Your task to perform on an android device: turn on notifications settings in the gmail app Image 0: 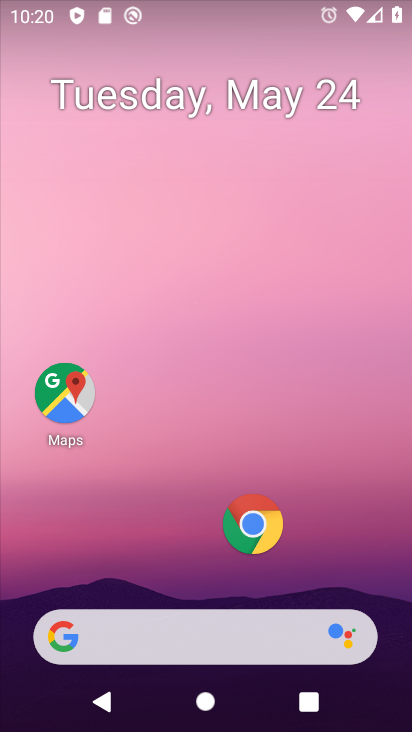
Step 0: drag from (169, 503) to (243, 26)
Your task to perform on an android device: turn on notifications settings in the gmail app Image 1: 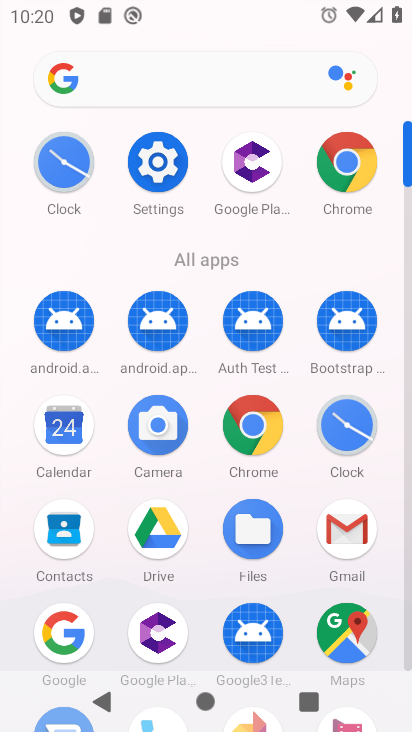
Step 1: click (341, 529)
Your task to perform on an android device: turn on notifications settings in the gmail app Image 2: 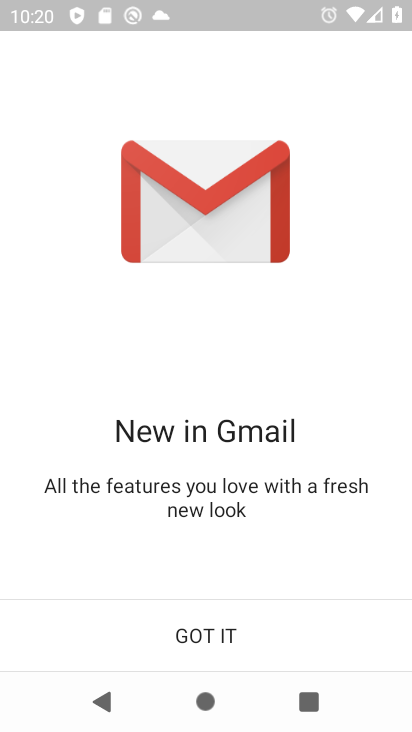
Step 2: click (262, 616)
Your task to perform on an android device: turn on notifications settings in the gmail app Image 3: 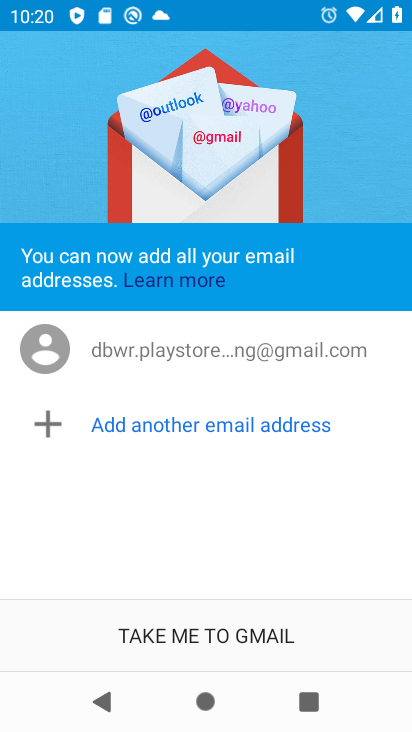
Step 3: click (264, 629)
Your task to perform on an android device: turn on notifications settings in the gmail app Image 4: 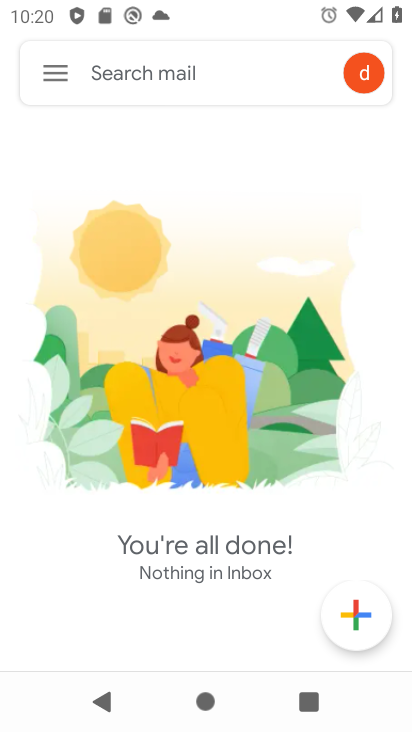
Step 4: click (50, 79)
Your task to perform on an android device: turn on notifications settings in the gmail app Image 5: 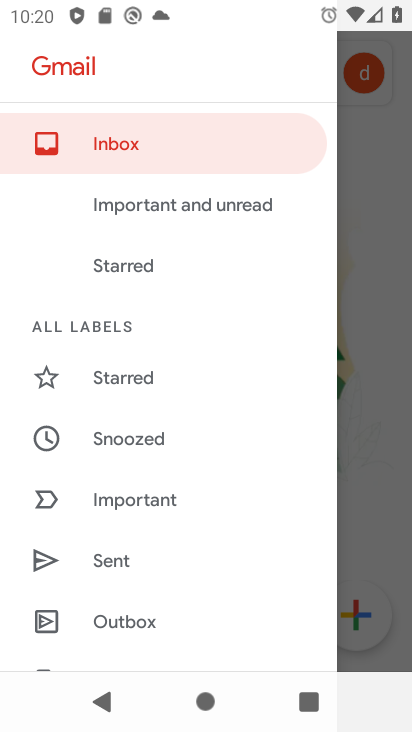
Step 5: drag from (148, 543) to (179, 130)
Your task to perform on an android device: turn on notifications settings in the gmail app Image 6: 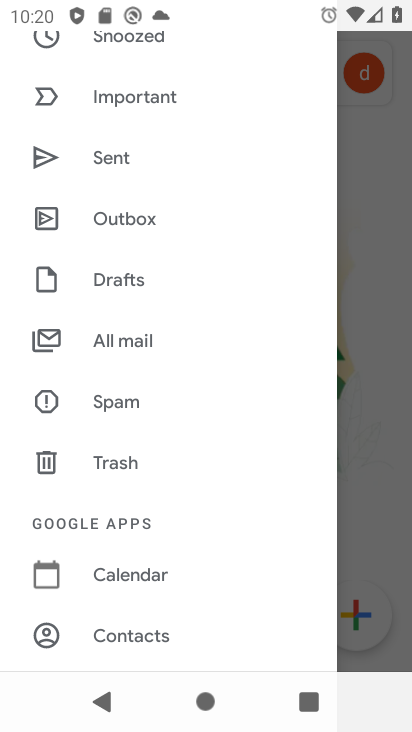
Step 6: drag from (173, 460) to (197, 172)
Your task to perform on an android device: turn on notifications settings in the gmail app Image 7: 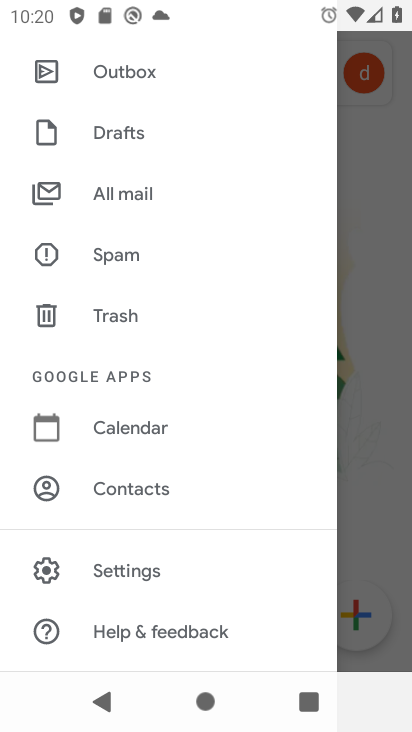
Step 7: click (180, 581)
Your task to perform on an android device: turn on notifications settings in the gmail app Image 8: 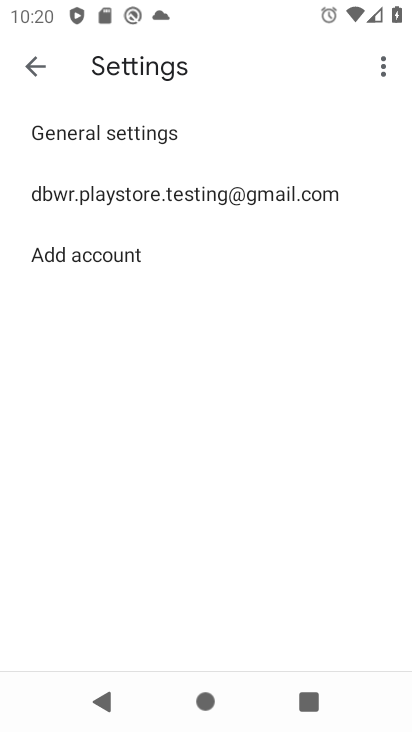
Step 8: click (253, 197)
Your task to perform on an android device: turn on notifications settings in the gmail app Image 9: 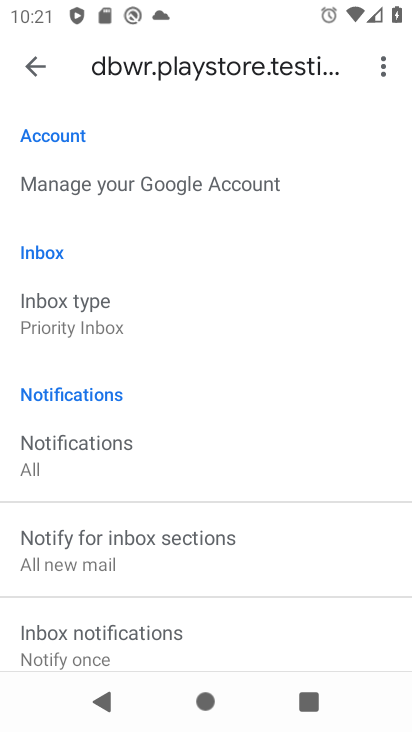
Step 9: drag from (214, 588) to (298, 218)
Your task to perform on an android device: turn on notifications settings in the gmail app Image 10: 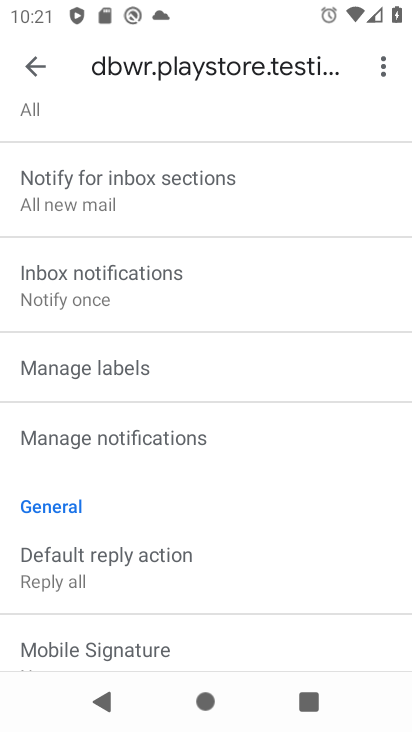
Step 10: click (242, 441)
Your task to perform on an android device: turn on notifications settings in the gmail app Image 11: 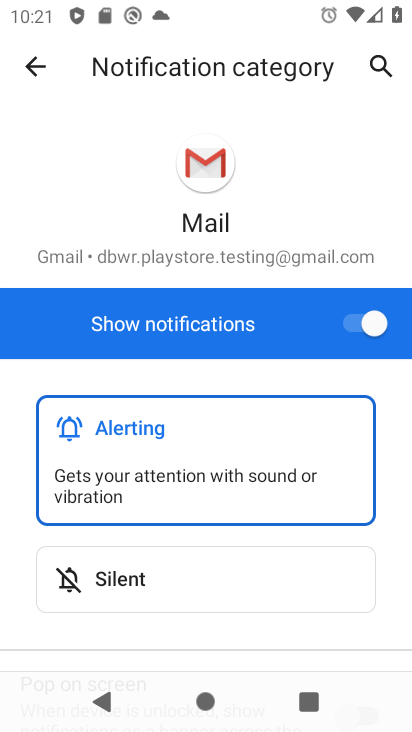
Step 11: task complete